Your task to perform on an android device: toggle priority inbox in the gmail app Image 0: 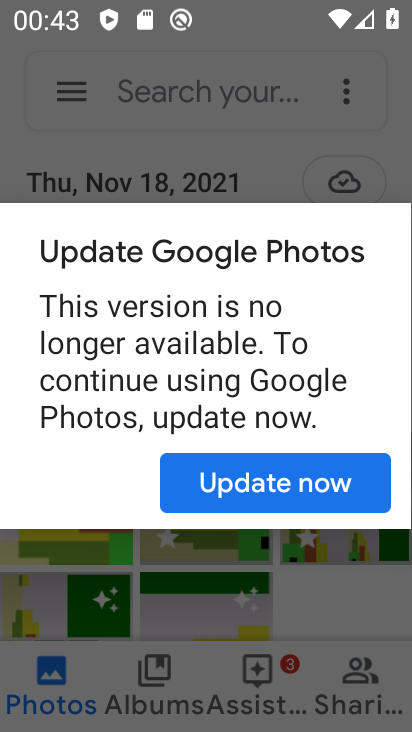
Step 0: press home button
Your task to perform on an android device: toggle priority inbox in the gmail app Image 1: 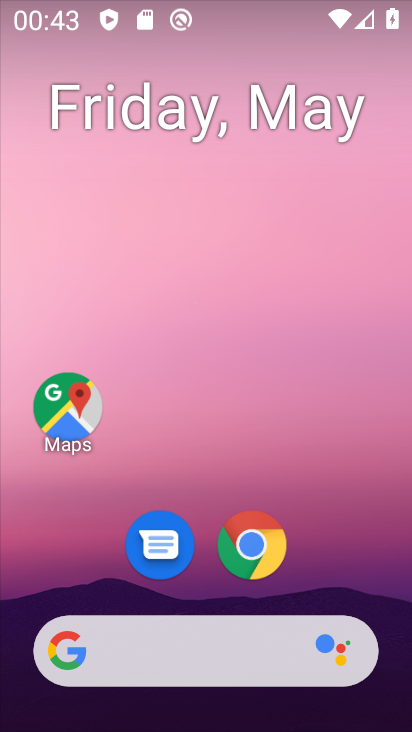
Step 1: drag from (296, 521) to (287, 321)
Your task to perform on an android device: toggle priority inbox in the gmail app Image 2: 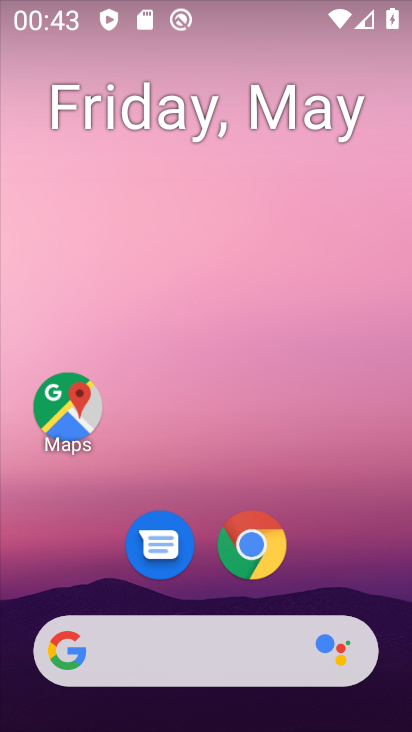
Step 2: click (134, 18)
Your task to perform on an android device: toggle priority inbox in the gmail app Image 3: 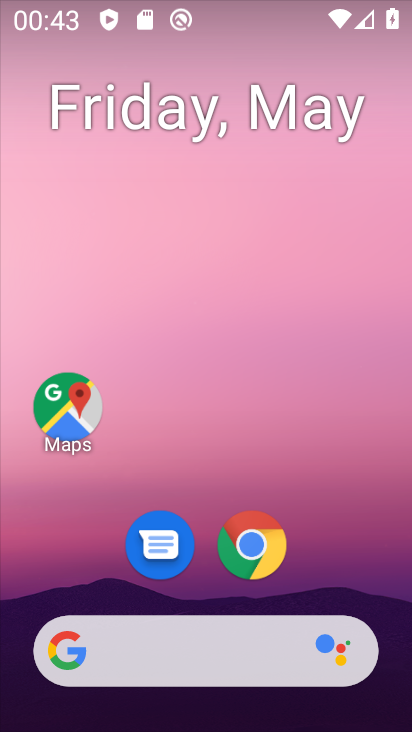
Step 3: drag from (312, 583) to (129, 11)
Your task to perform on an android device: toggle priority inbox in the gmail app Image 4: 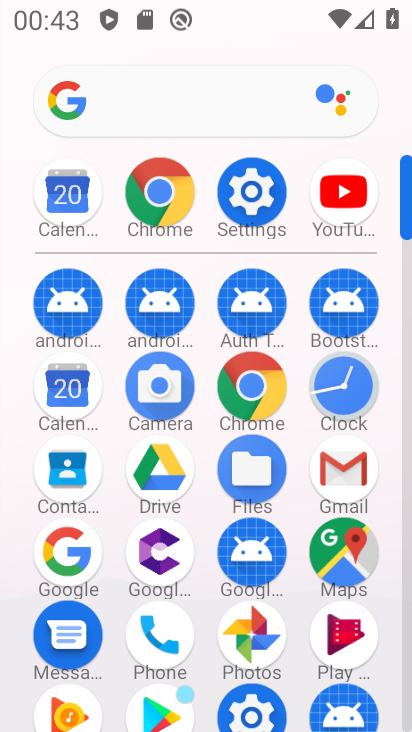
Step 4: click (343, 473)
Your task to perform on an android device: toggle priority inbox in the gmail app Image 5: 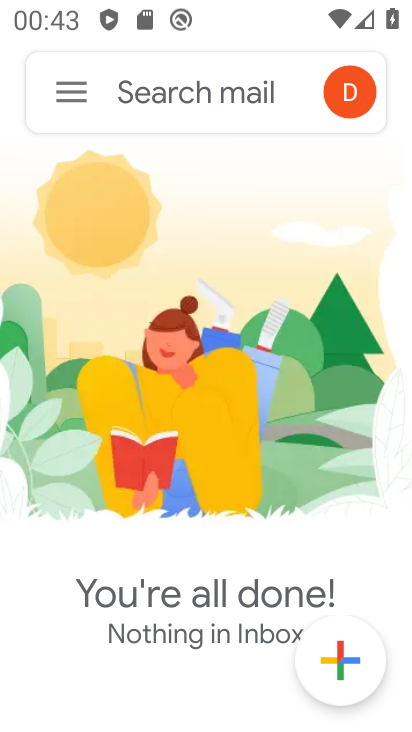
Step 5: click (70, 101)
Your task to perform on an android device: toggle priority inbox in the gmail app Image 6: 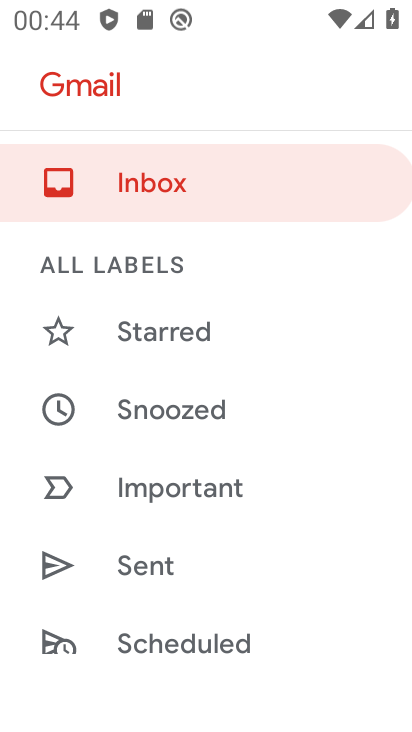
Step 6: drag from (242, 627) to (239, 134)
Your task to perform on an android device: toggle priority inbox in the gmail app Image 7: 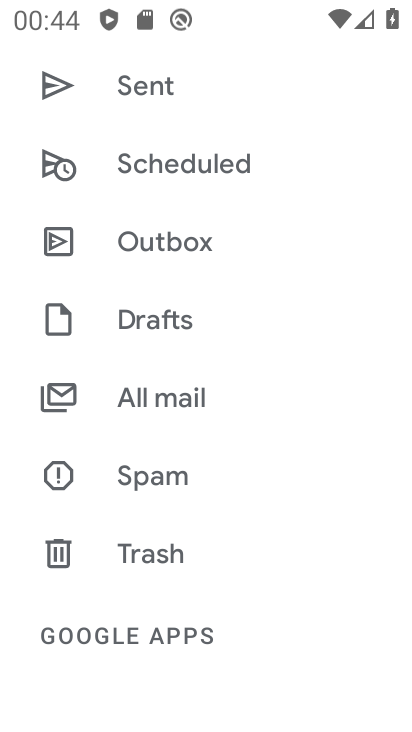
Step 7: drag from (272, 537) to (244, 211)
Your task to perform on an android device: toggle priority inbox in the gmail app Image 8: 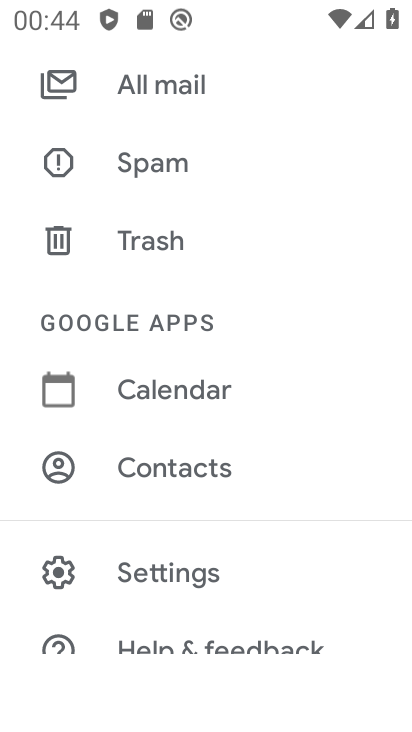
Step 8: click (205, 583)
Your task to perform on an android device: toggle priority inbox in the gmail app Image 9: 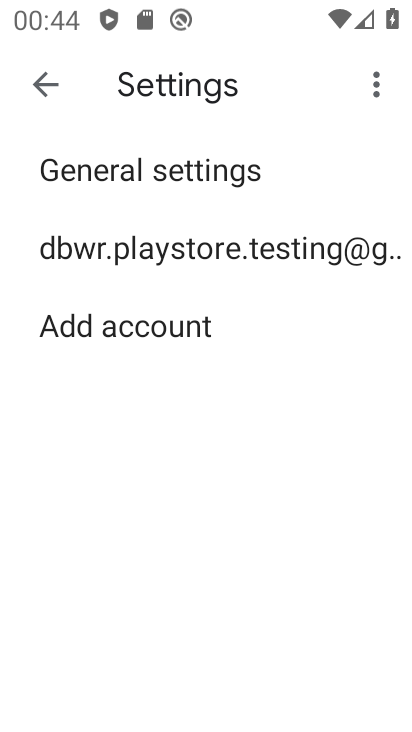
Step 9: click (256, 262)
Your task to perform on an android device: toggle priority inbox in the gmail app Image 10: 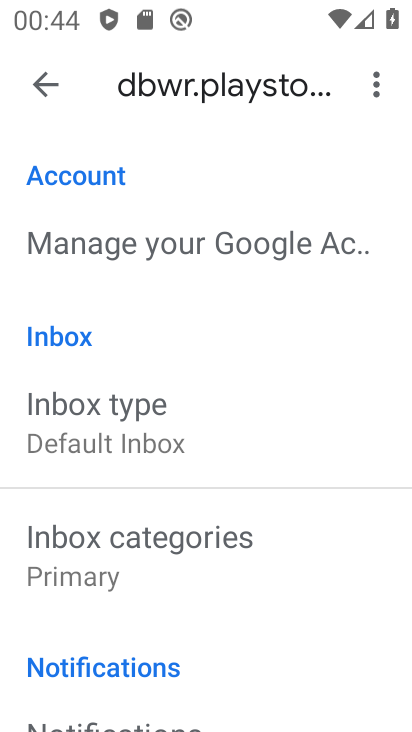
Step 10: click (140, 429)
Your task to perform on an android device: toggle priority inbox in the gmail app Image 11: 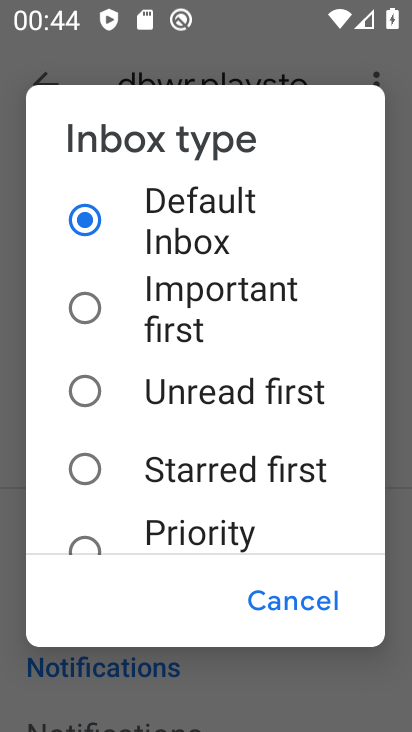
Step 11: click (95, 557)
Your task to perform on an android device: toggle priority inbox in the gmail app Image 12: 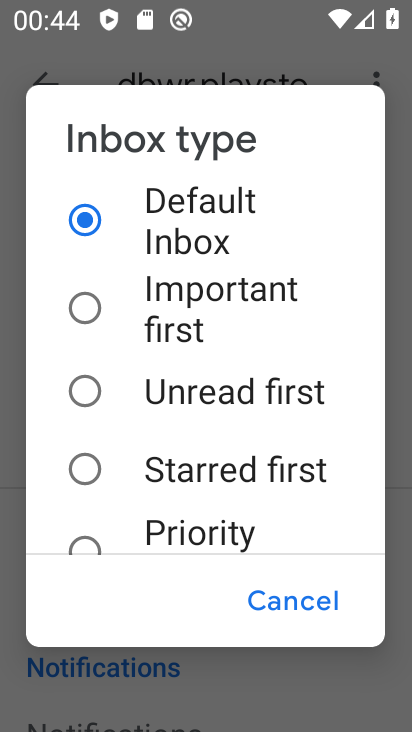
Step 12: click (94, 556)
Your task to perform on an android device: toggle priority inbox in the gmail app Image 13: 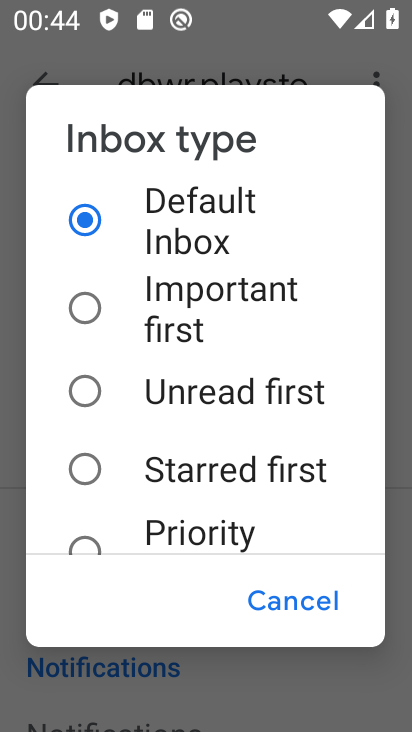
Step 13: click (86, 549)
Your task to perform on an android device: toggle priority inbox in the gmail app Image 14: 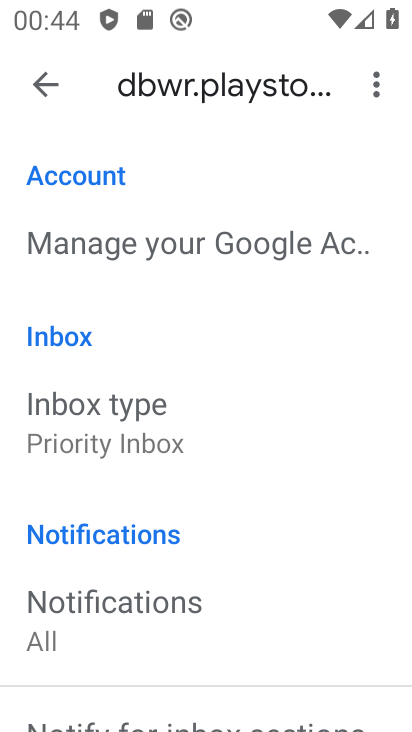
Step 14: task complete